Your task to perform on an android device: turn notification dots off Image 0: 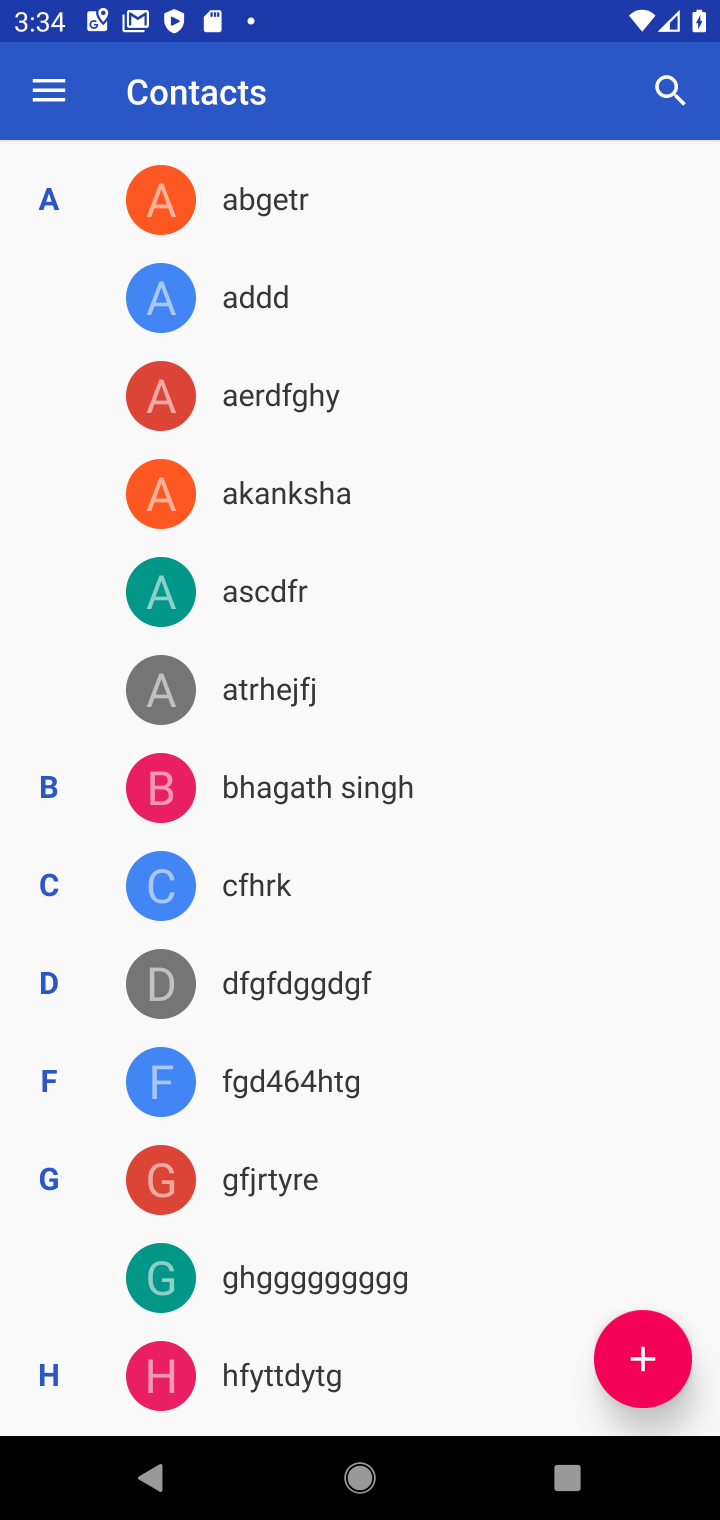
Step 0: press home button
Your task to perform on an android device: turn notification dots off Image 1: 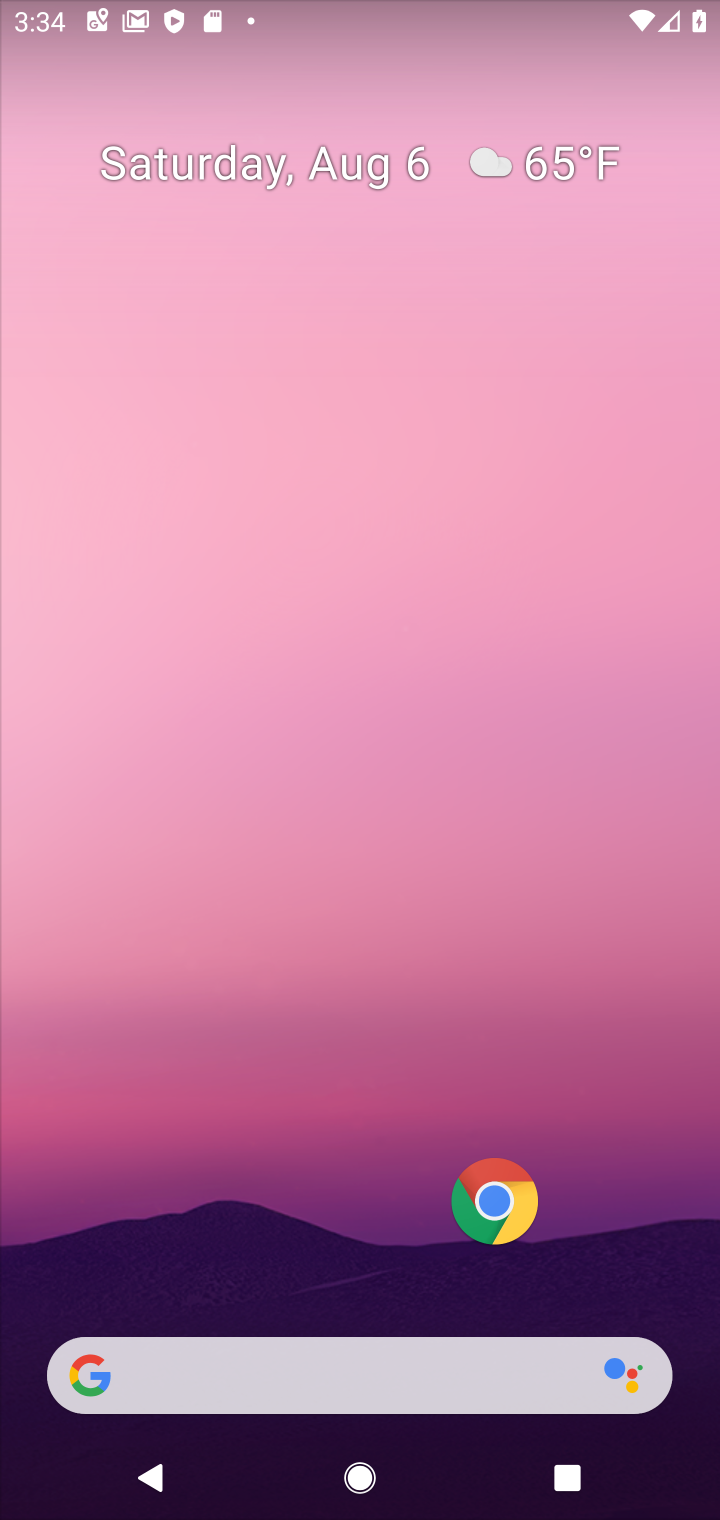
Step 1: drag from (251, 1421) to (373, 755)
Your task to perform on an android device: turn notification dots off Image 2: 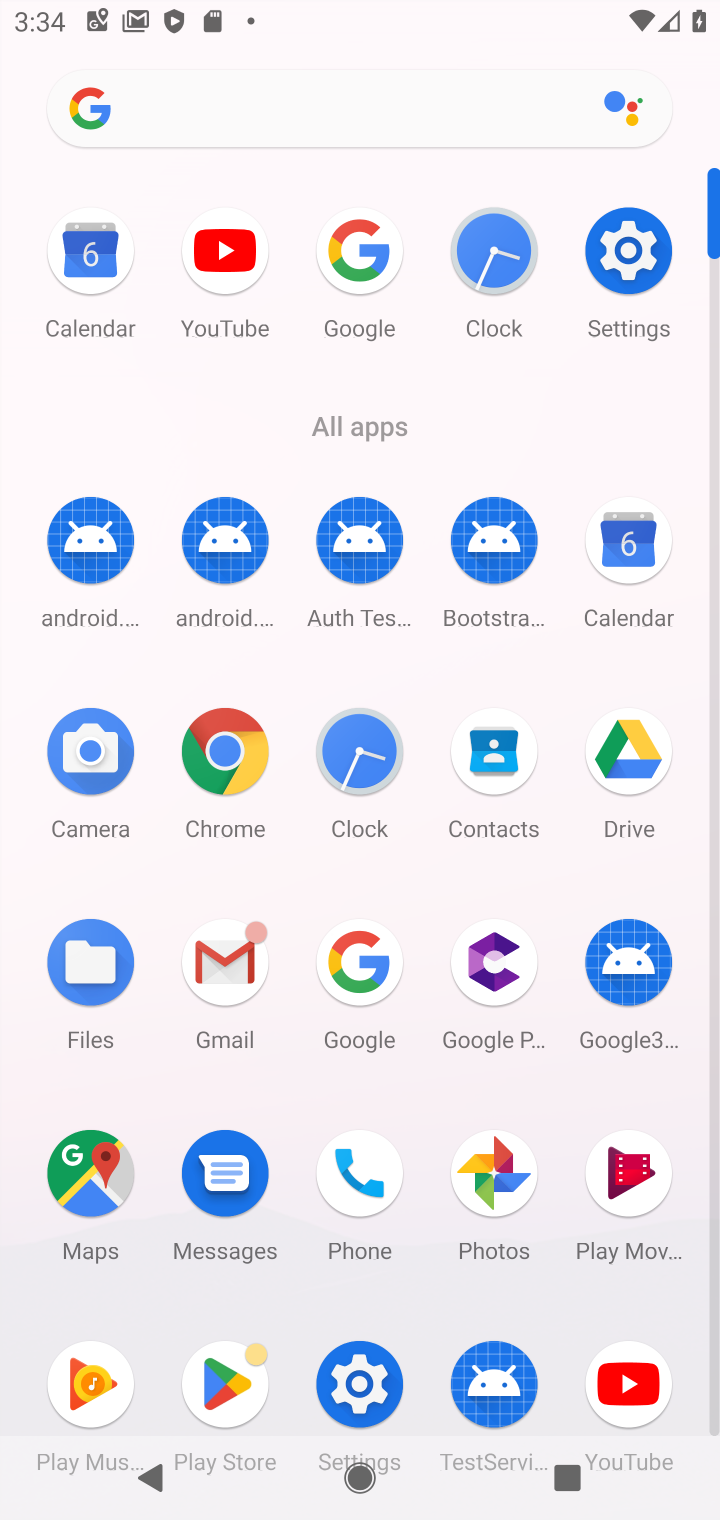
Step 2: click (353, 1387)
Your task to perform on an android device: turn notification dots off Image 3: 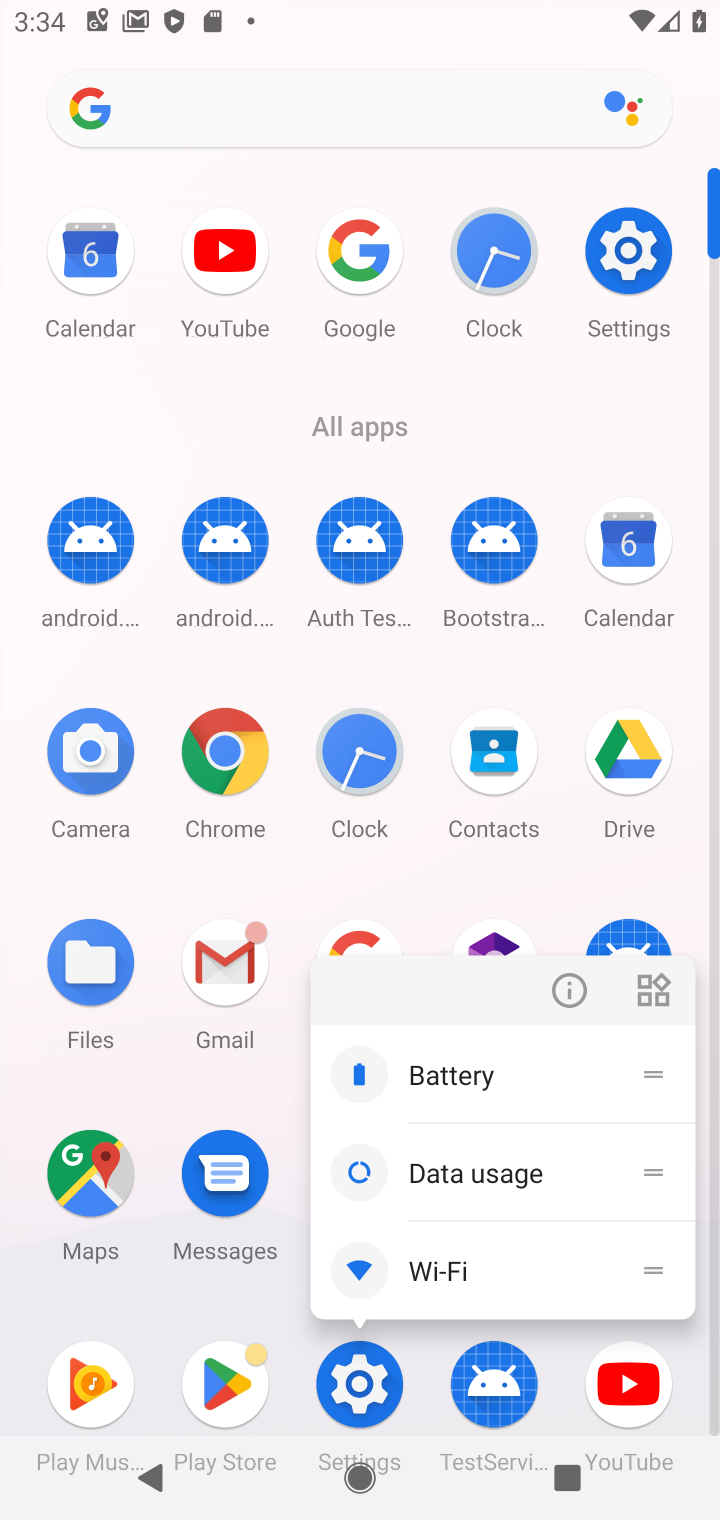
Step 3: click (373, 1375)
Your task to perform on an android device: turn notification dots off Image 4: 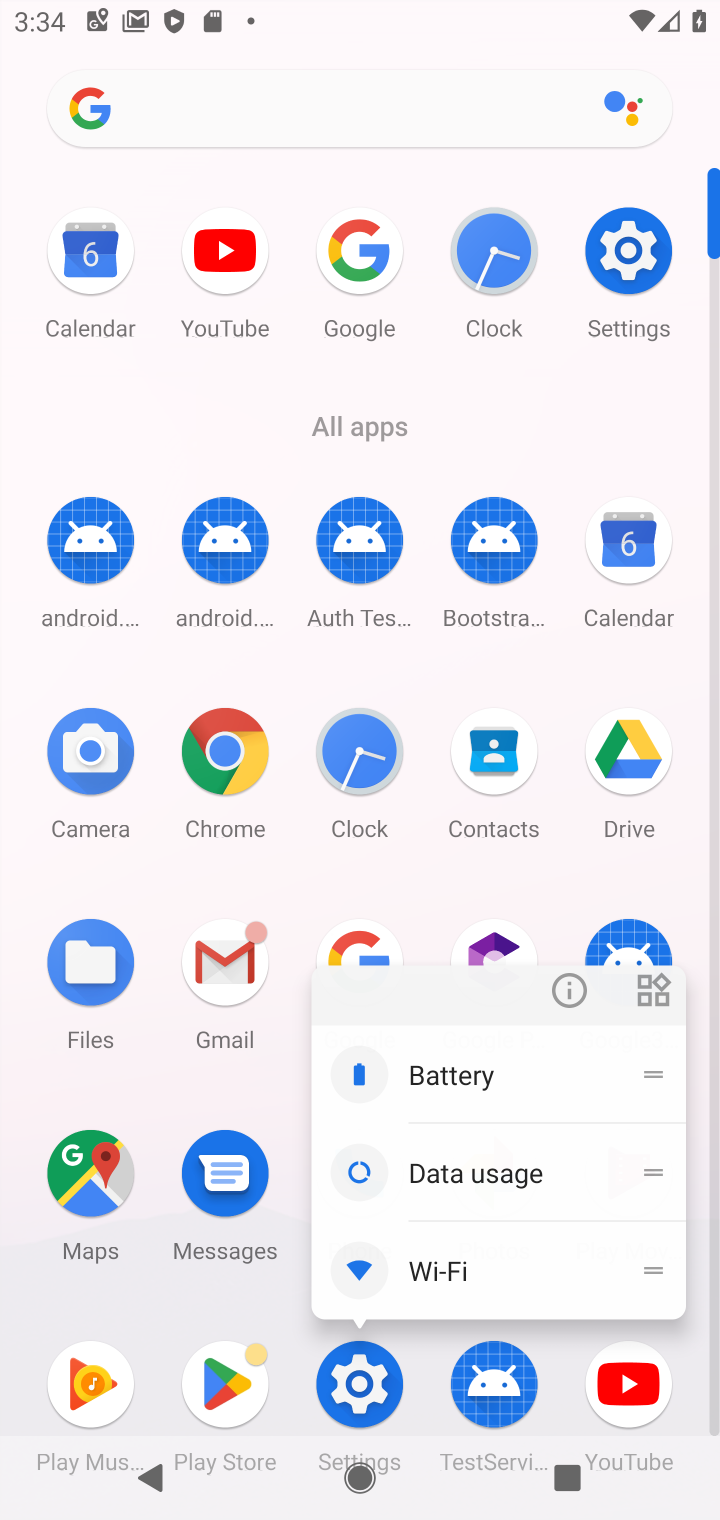
Step 4: click (373, 1375)
Your task to perform on an android device: turn notification dots off Image 5: 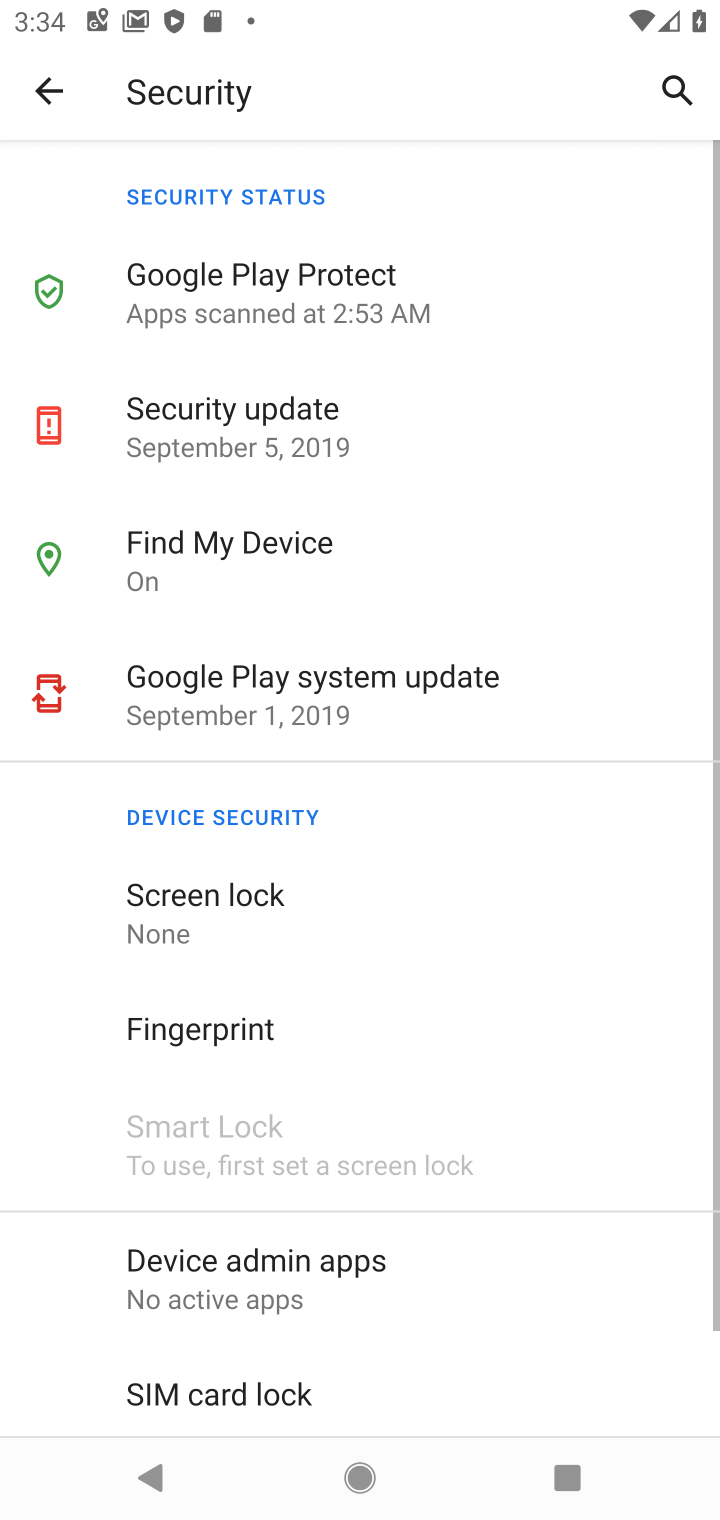
Step 5: click (68, 88)
Your task to perform on an android device: turn notification dots off Image 6: 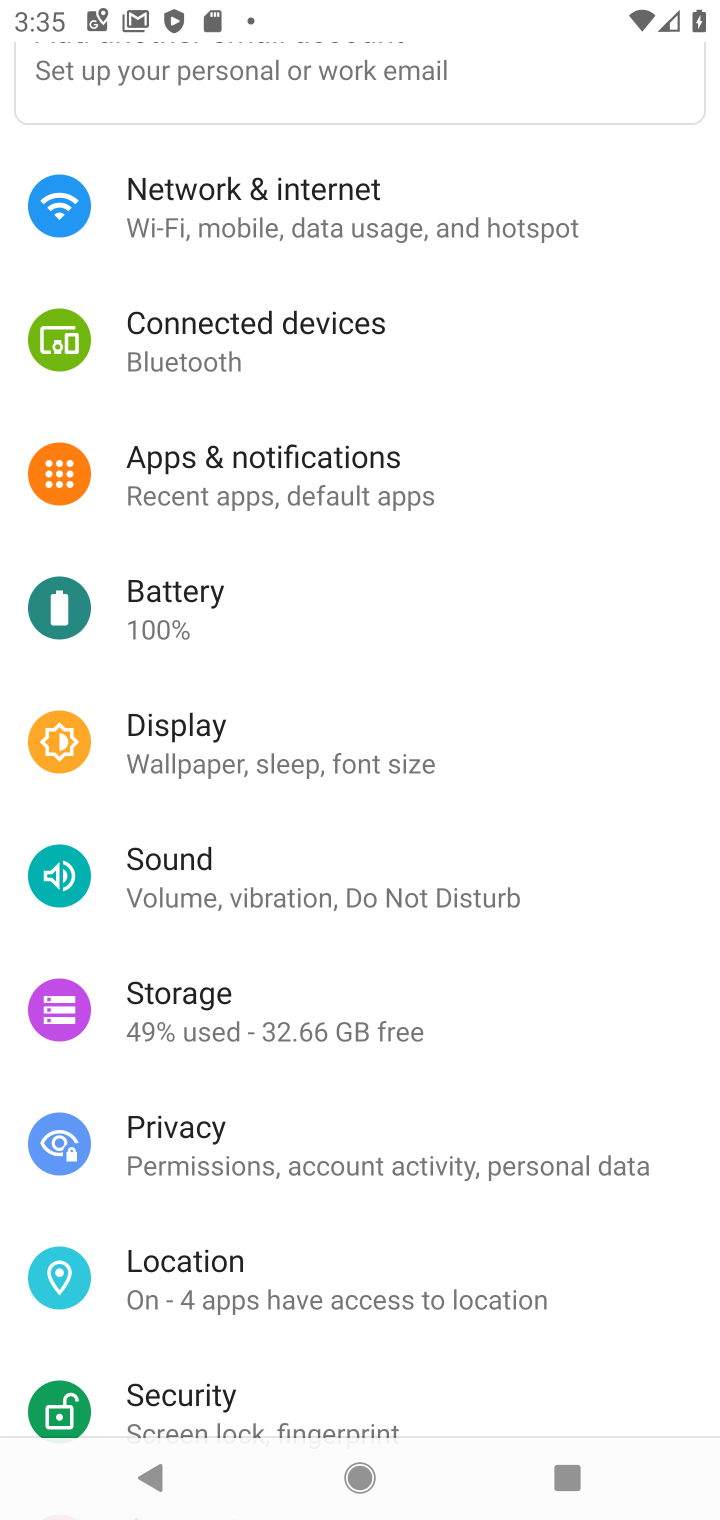
Step 6: click (307, 479)
Your task to perform on an android device: turn notification dots off Image 7: 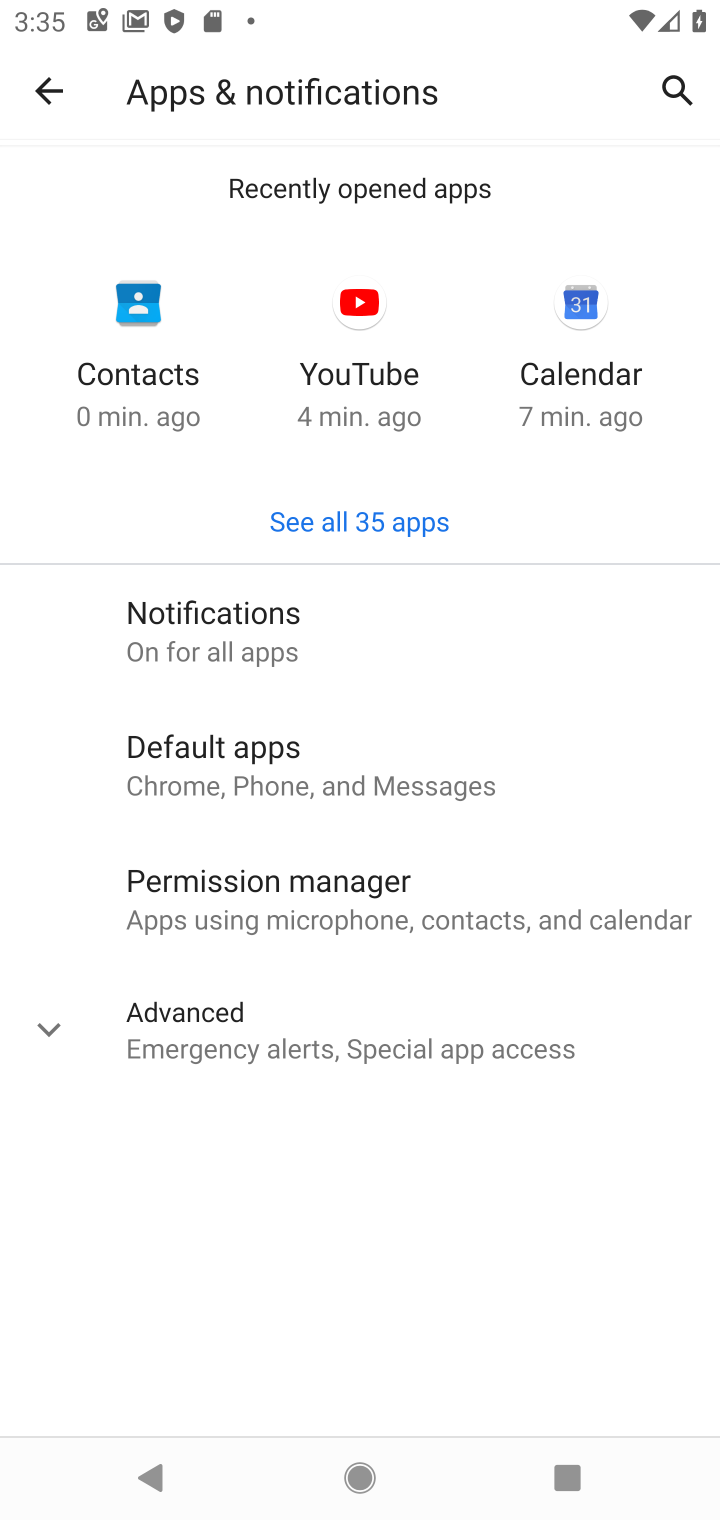
Step 7: click (373, 617)
Your task to perform on an android device: turn notification dots off Image 8: 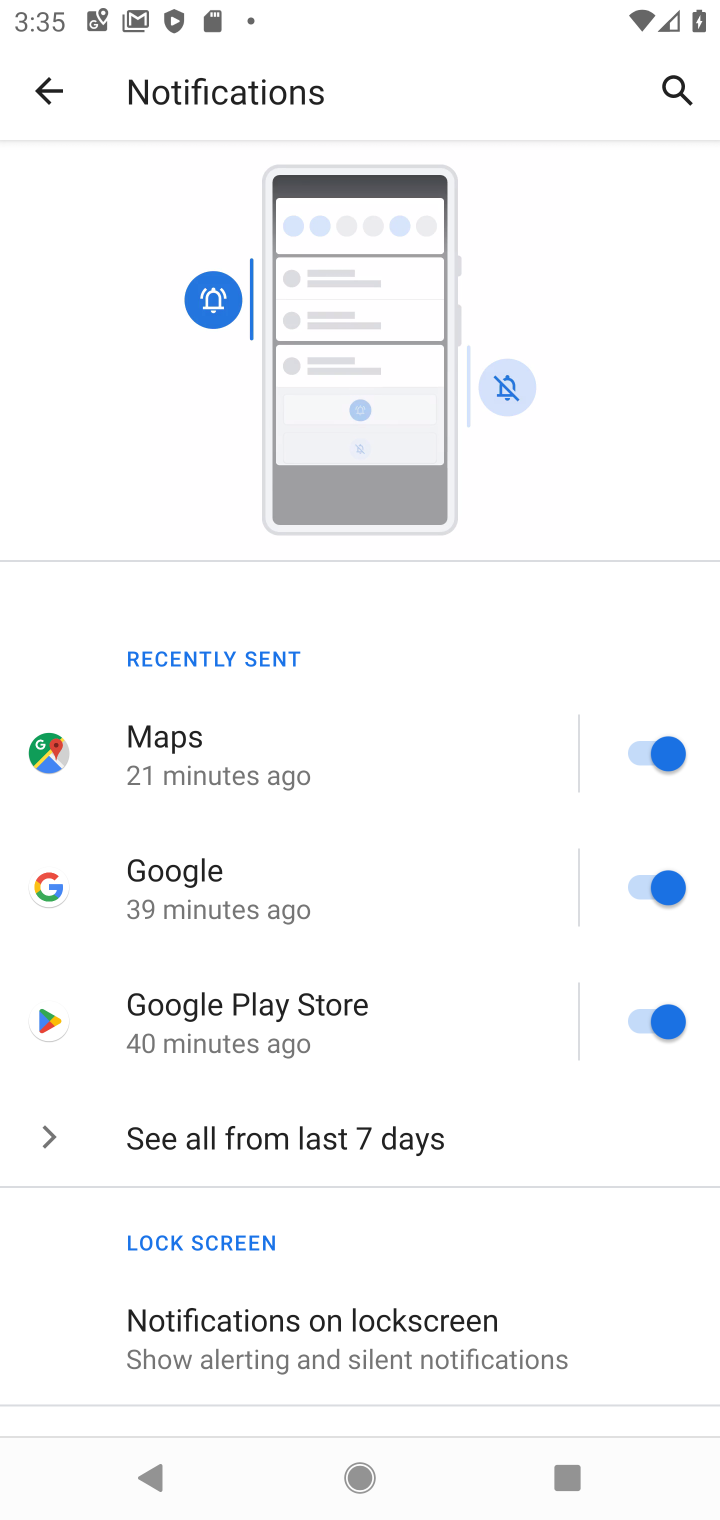
Step 8: drag from (453, 1250) to (504, 44)
Your task to perform on an android device: turn notification dots off Image 9: 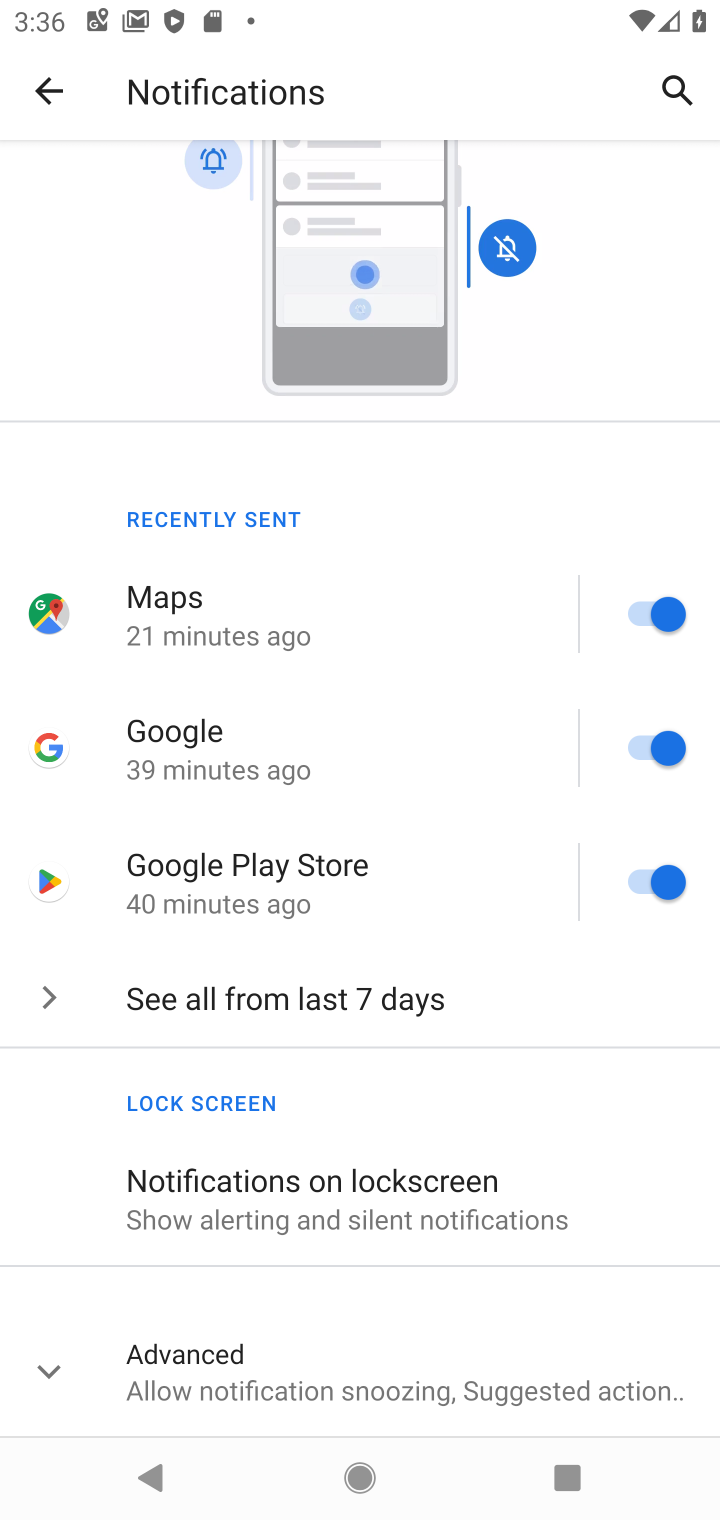
Step 9: click (358, 1363)
Your task to perform on an android device: turn notification dots off Image 10: 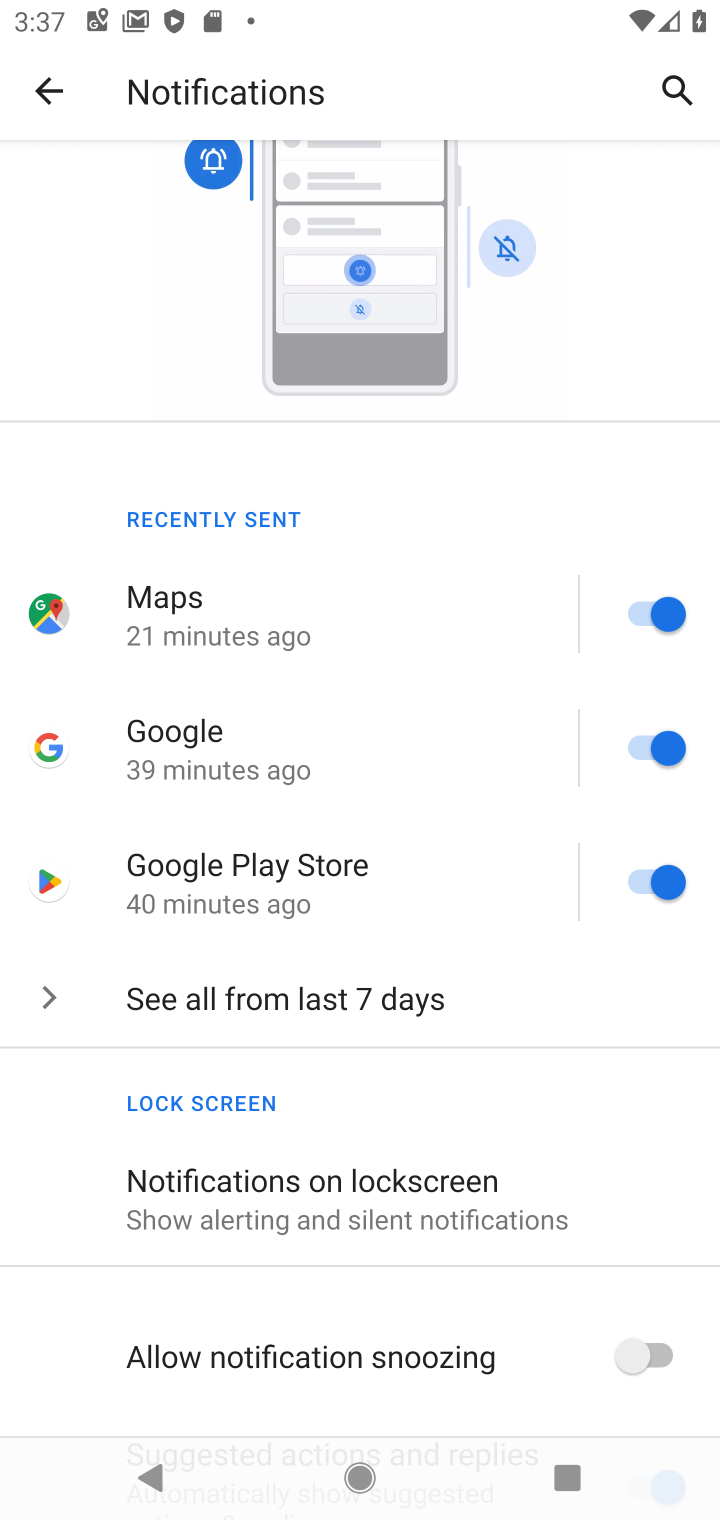
Step 10: drag from (388, 1318) to (459, 605)
Your task to perform on an android device: turn notification dots off Image 11: 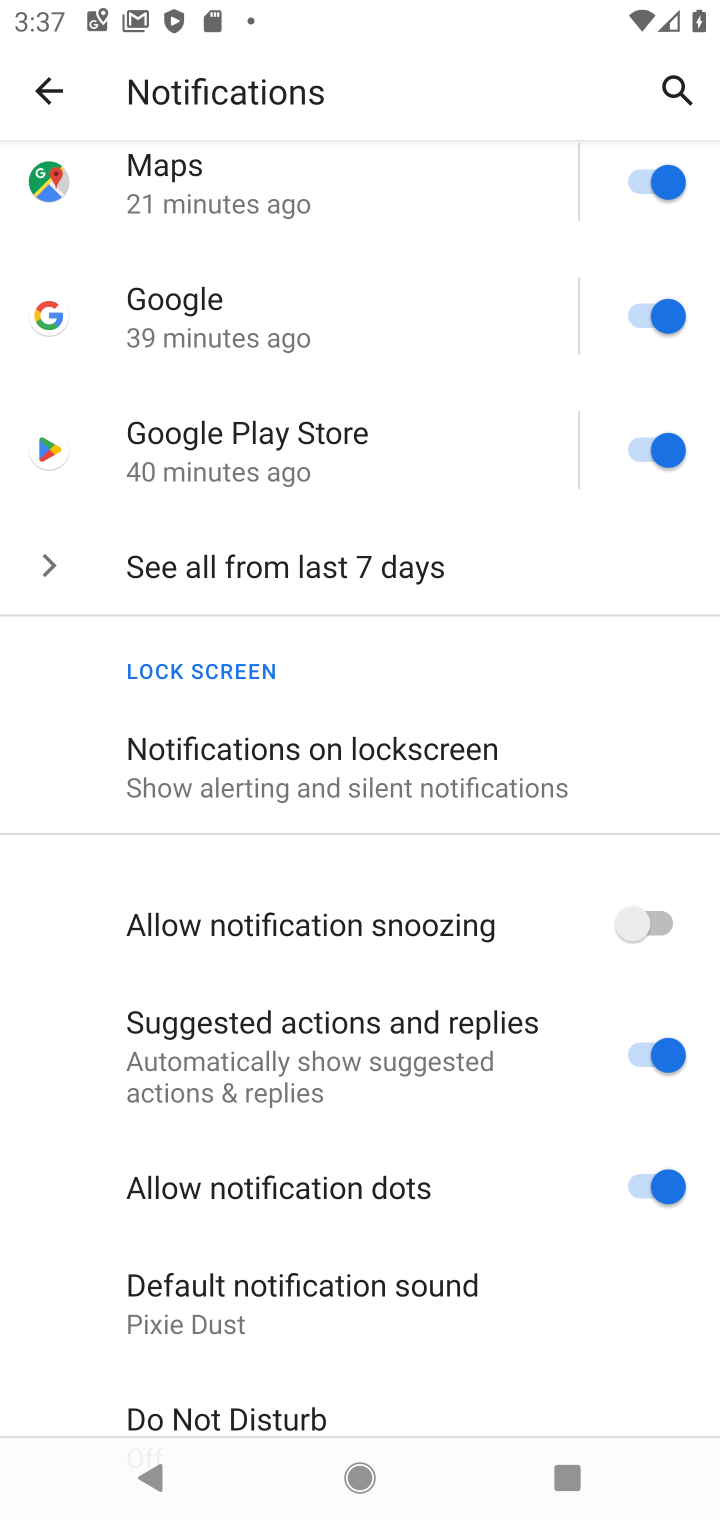
Step 11: click (672, 1189)
Your task to perform on an android device: turn notification dots off Image 12: 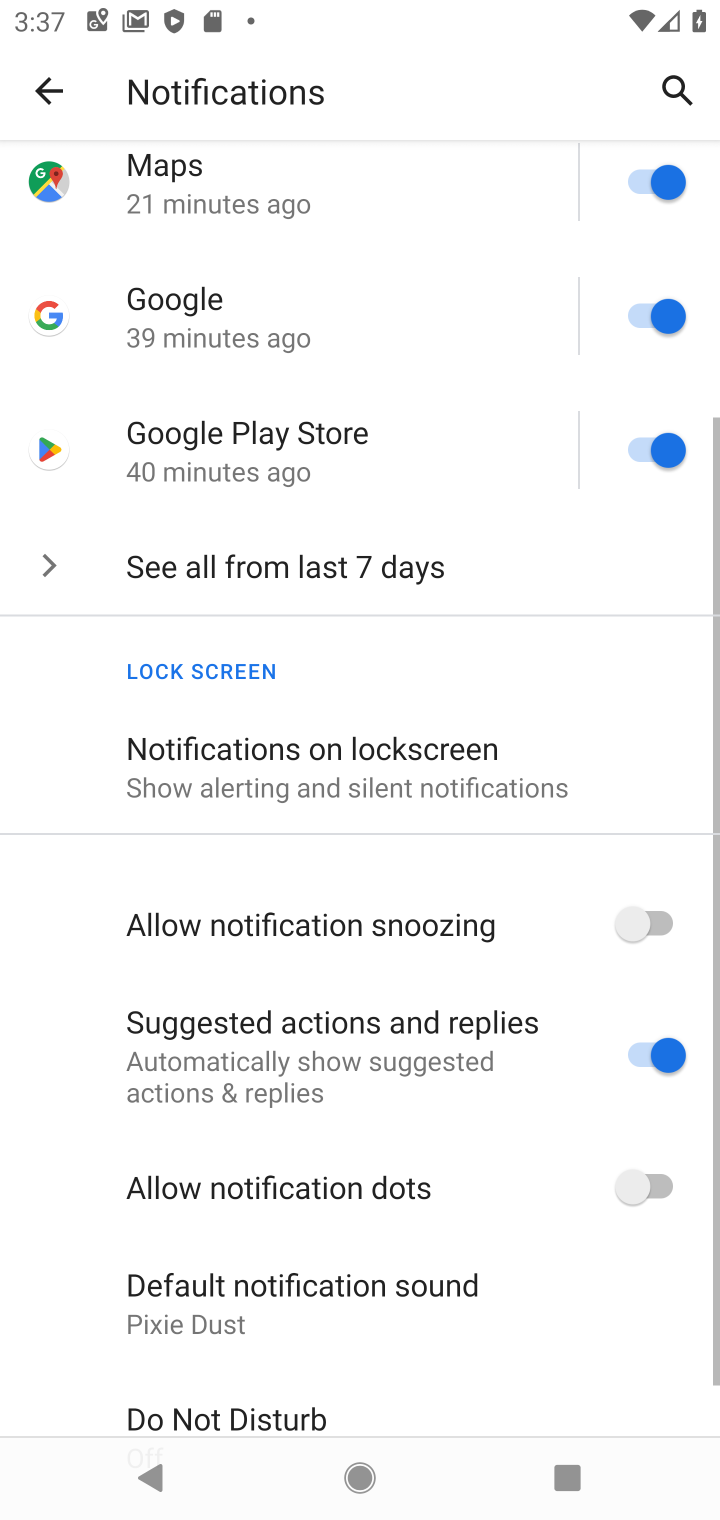
Step 12: task complete